Your task to perform on an android device: Check the settings for the Google Maps app Image 0: 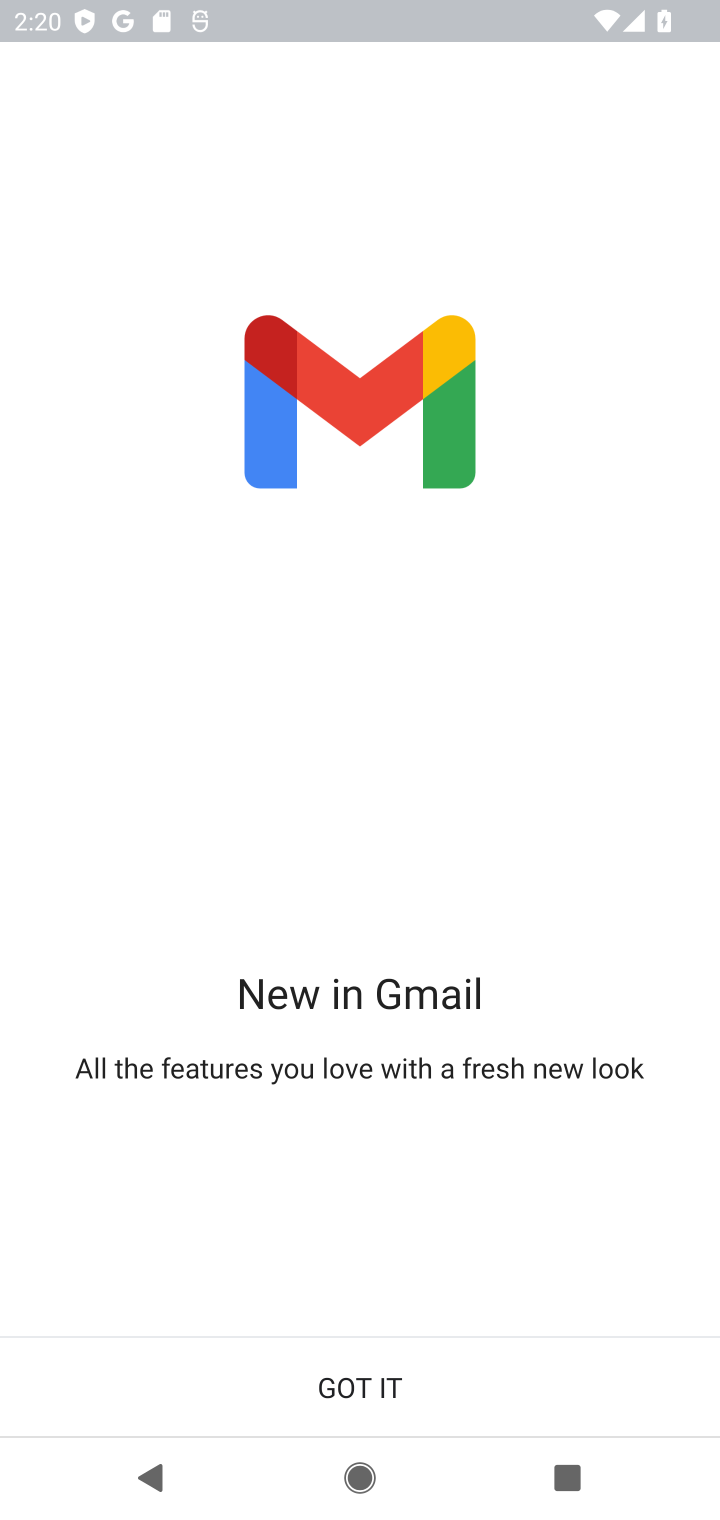
Step 0: press home button
Your task to perform on an android device: Check the settings for the Google Maps app Image 1: 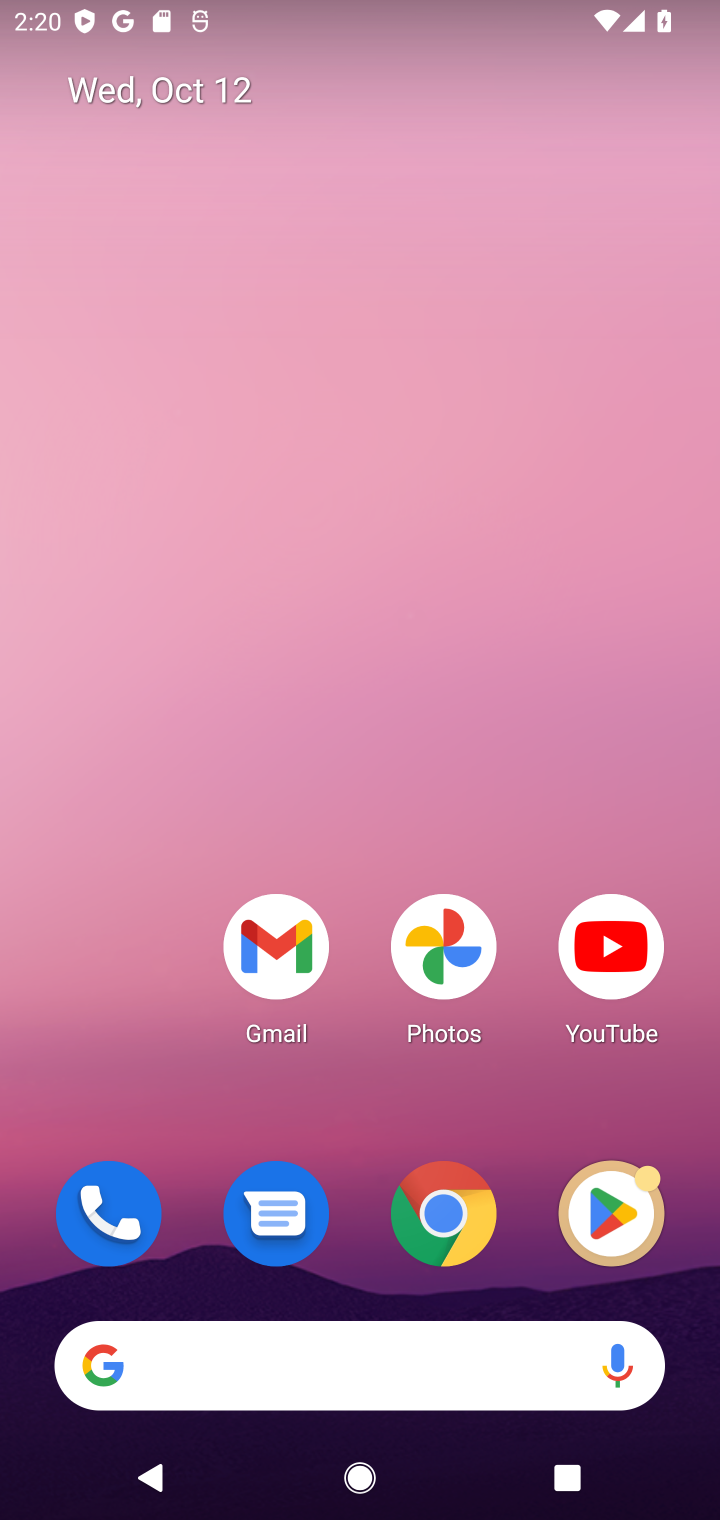
Step 1: drag from (377, 836) to (483, 89)
Your task to perform on an android device: Check the settings for the Google Maps app Image 2: 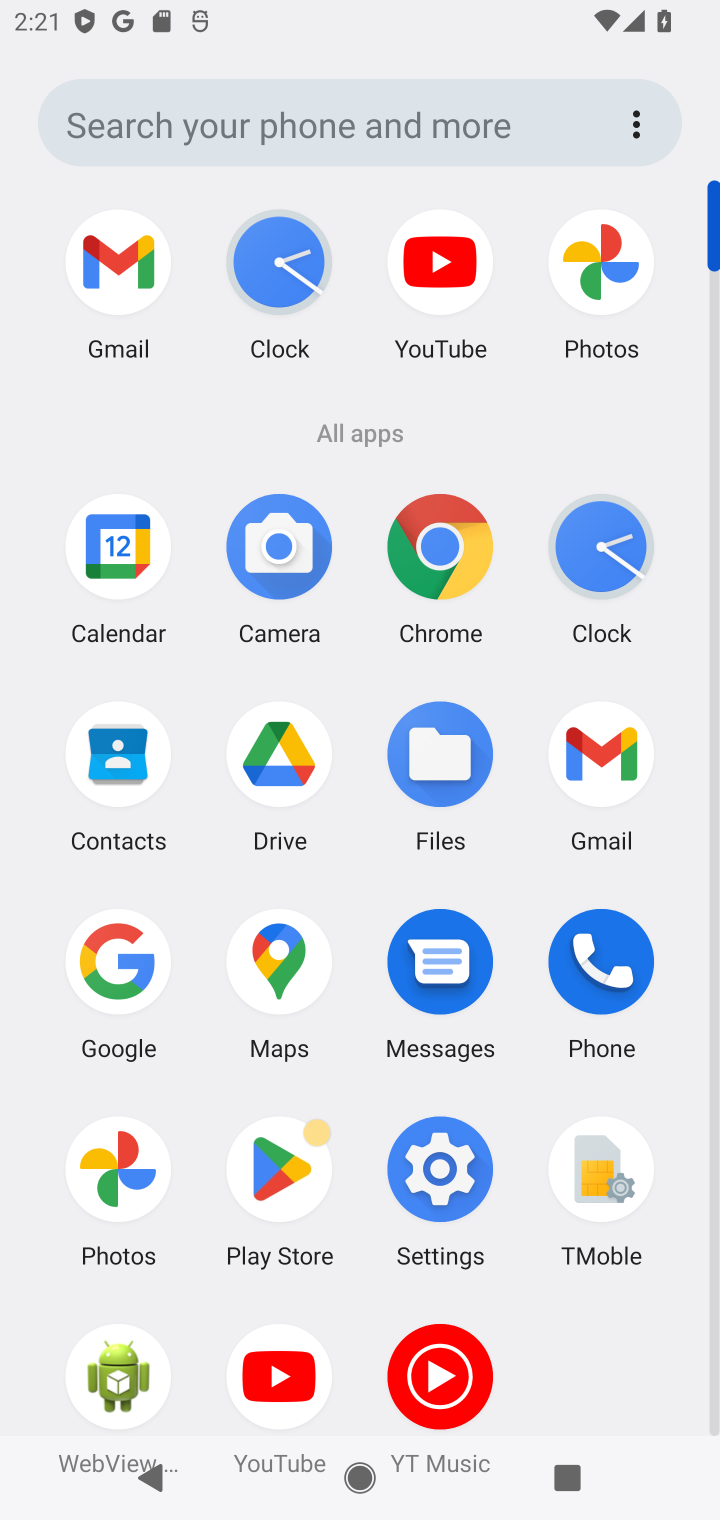
Step 2: click (268, 959)
Your task to perform on an android device: Check the settings for the Google Maps app Image 3: 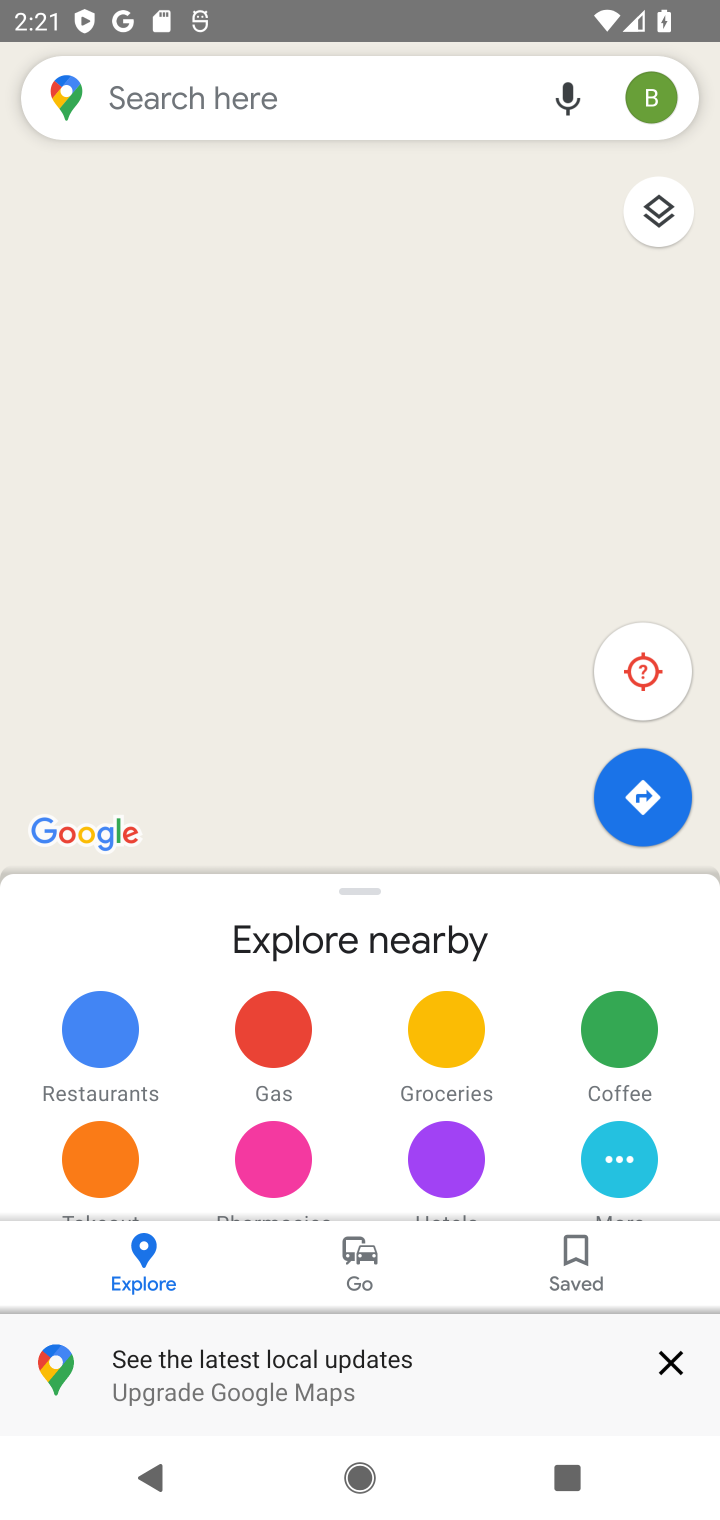
Step 3: click (637, 90)
Your task to perform on an android device: Check the settings for the Google Maps app Image 4: 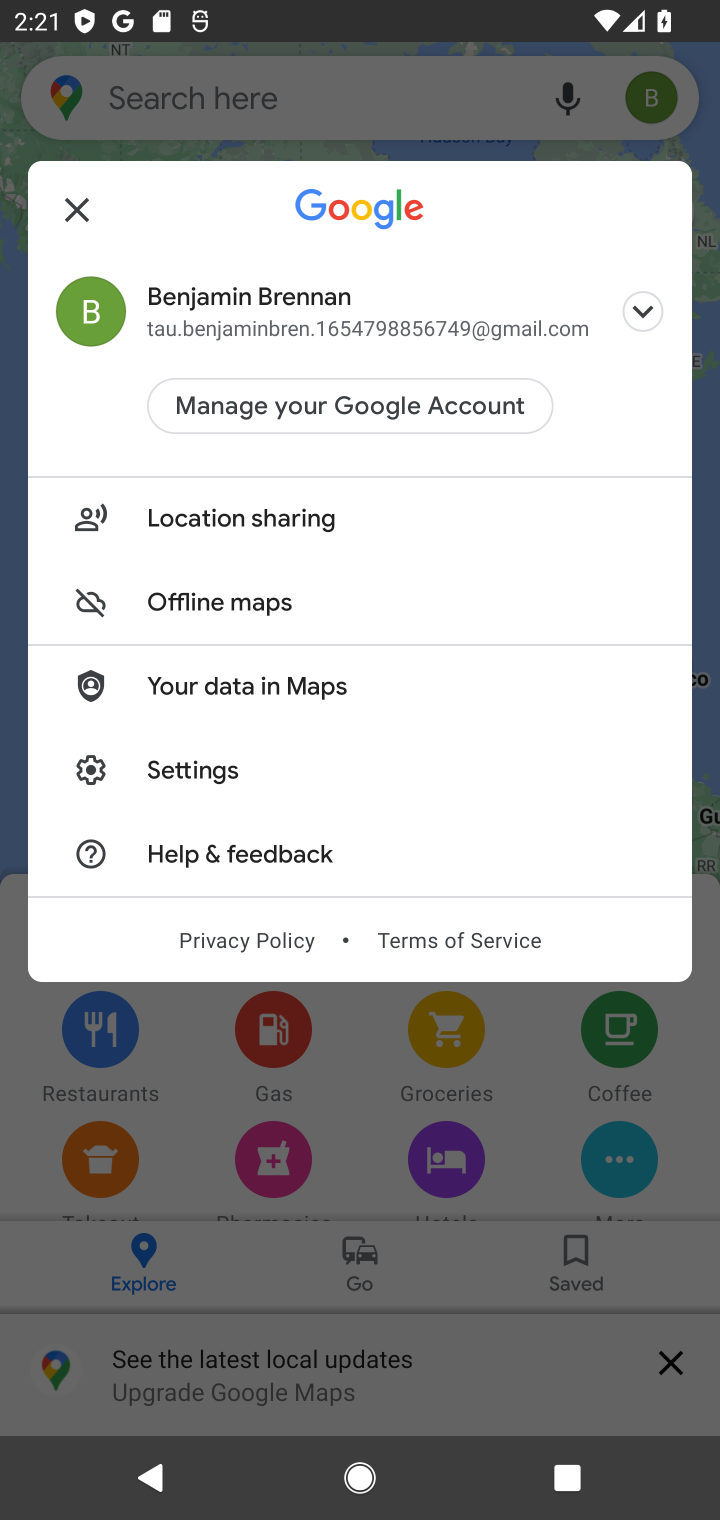
Step 4: click (328, 1178)
Your task to perform on an android device: Check the settings for the Google Maps app Image 5: 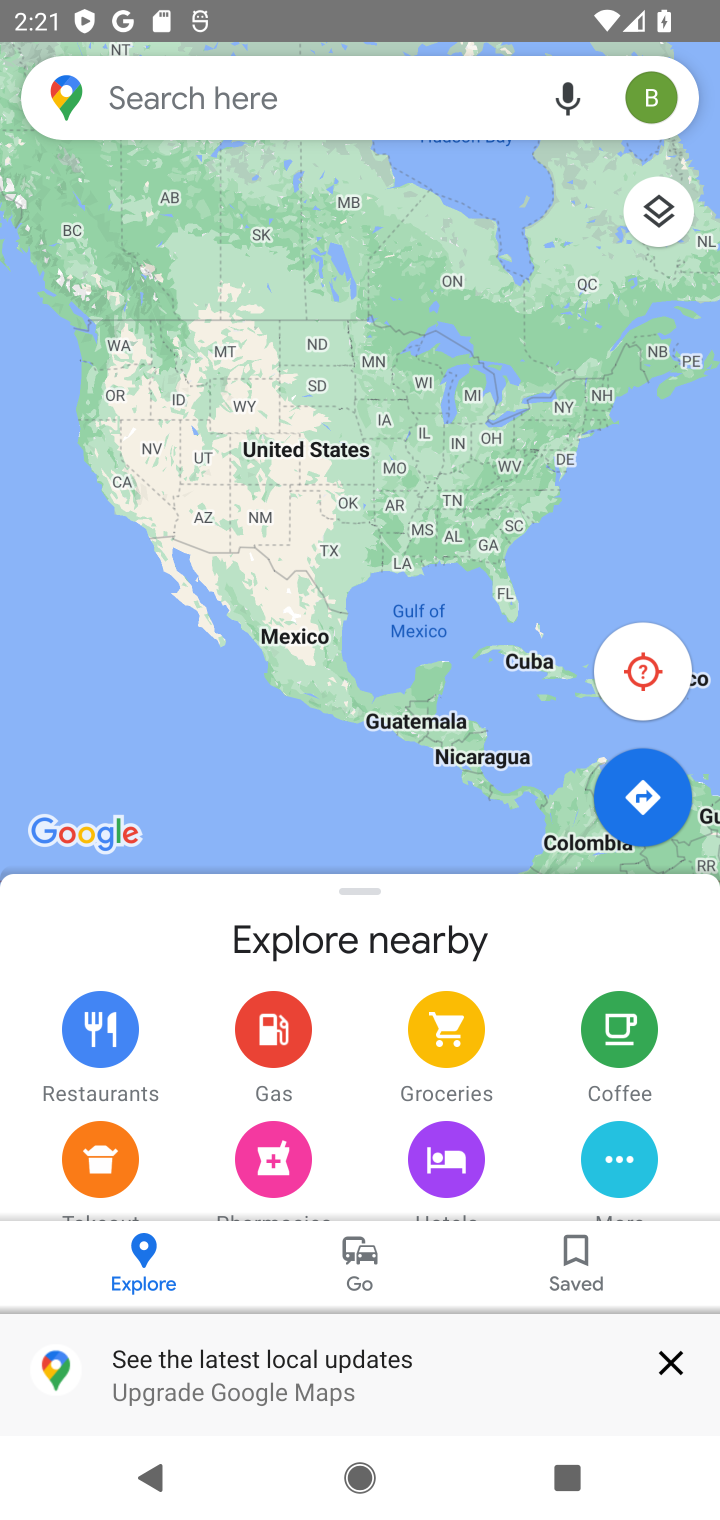
Step 5: click (651, 90)
Your task to perform on an android device: Check the settings for the Google Maps app Image 6: 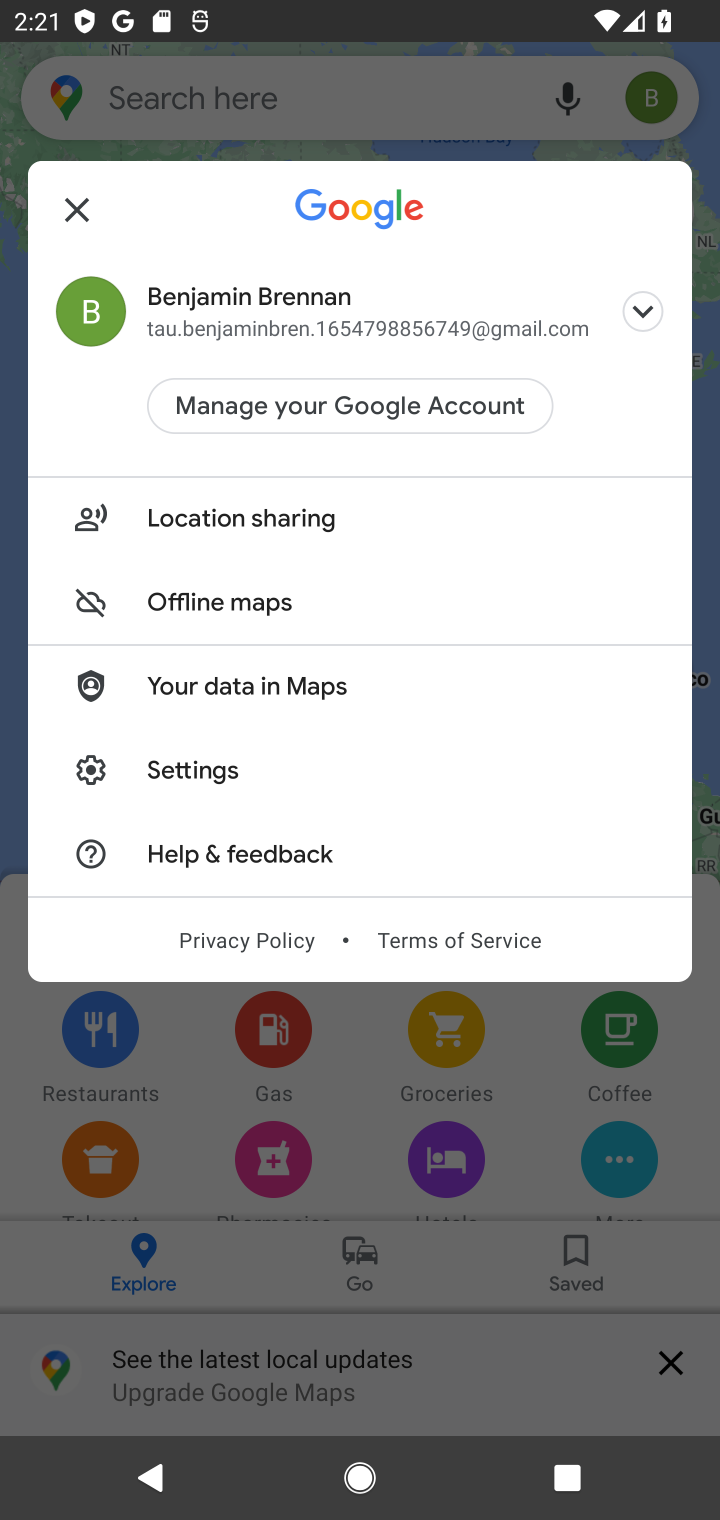
Step 6: click (195, 1089)
Your task to perform on an android device: Check the settings for the Google Maps app Image 7: 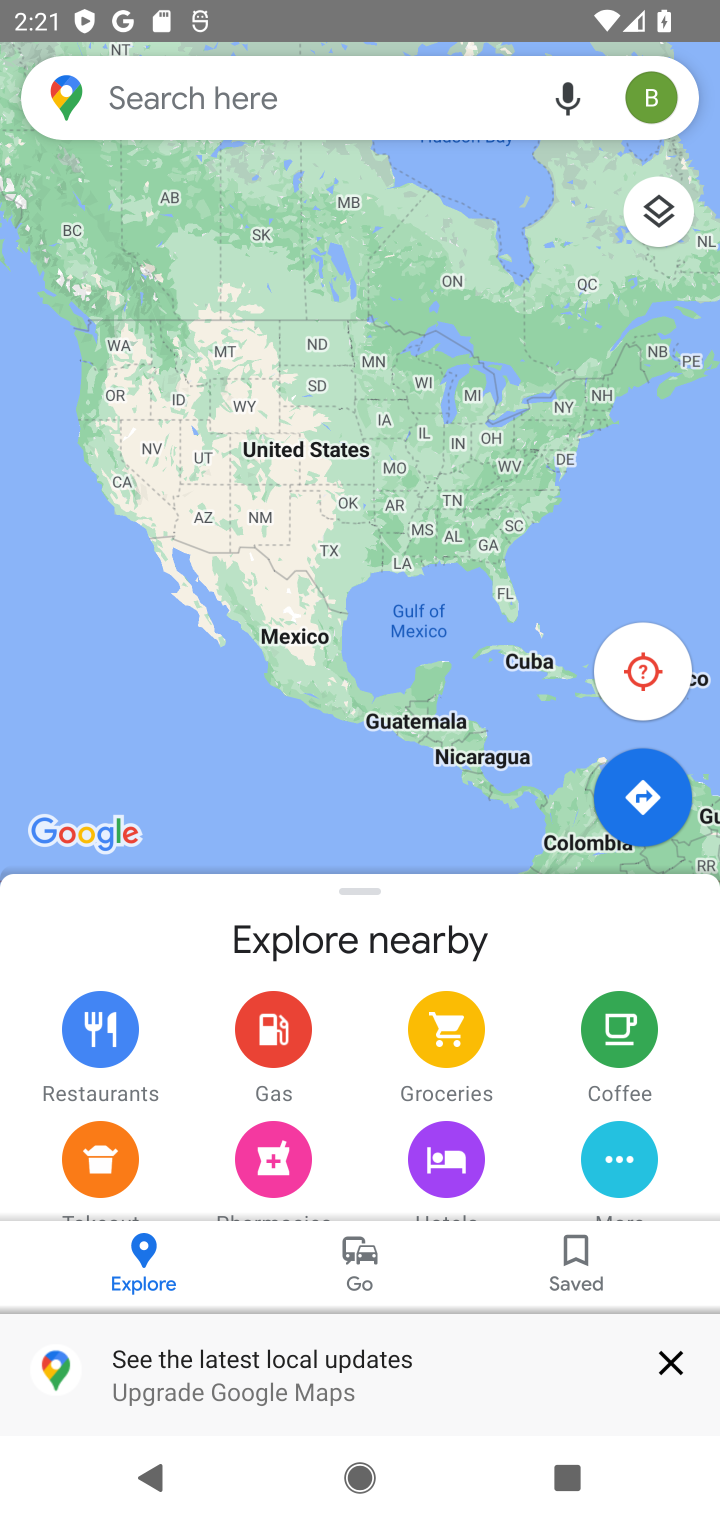
Step 7: click (68, 109)
Your task to perform on an android device: Check the settings for the Google Maps app Image 8: 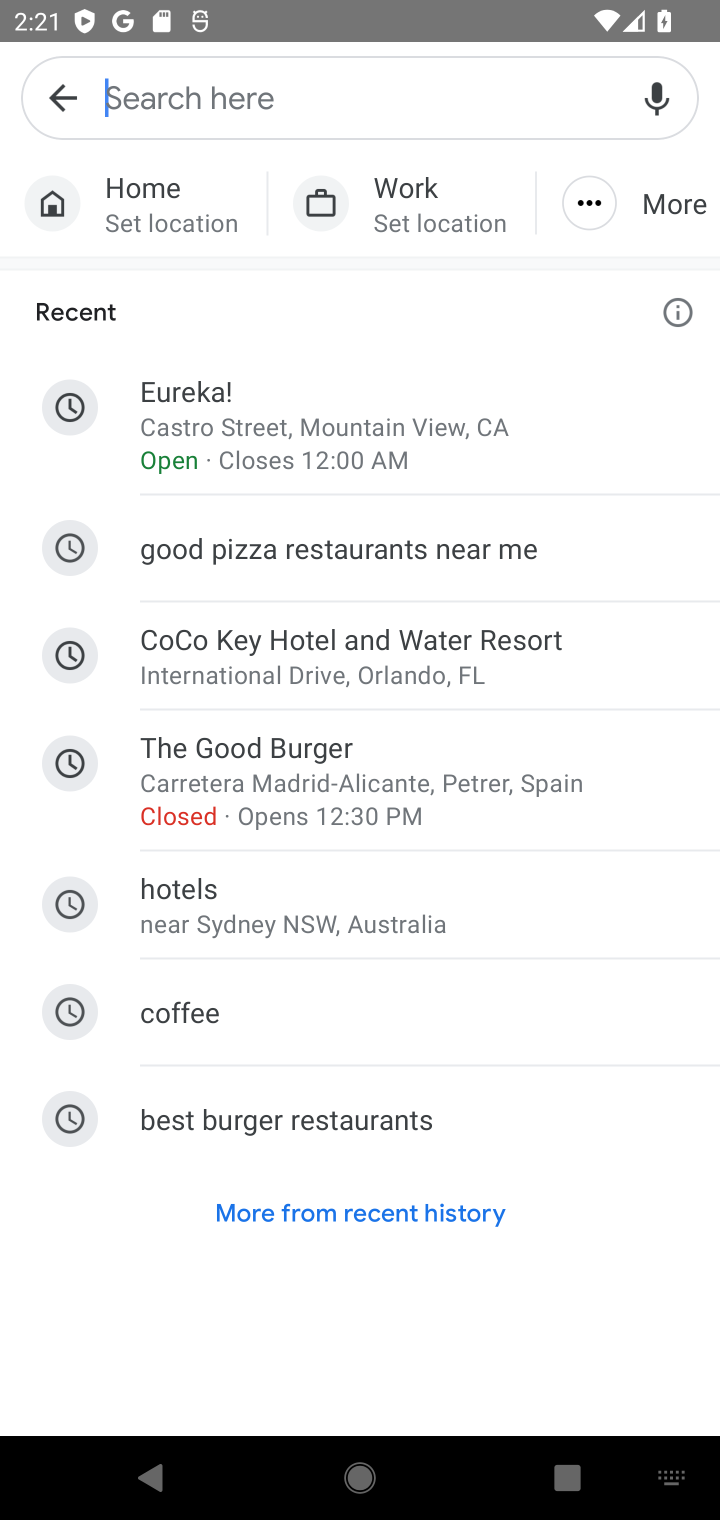
Step 8: press back button
Your task to perform on an android device: Check the settings for the Google Maps app Image 9: 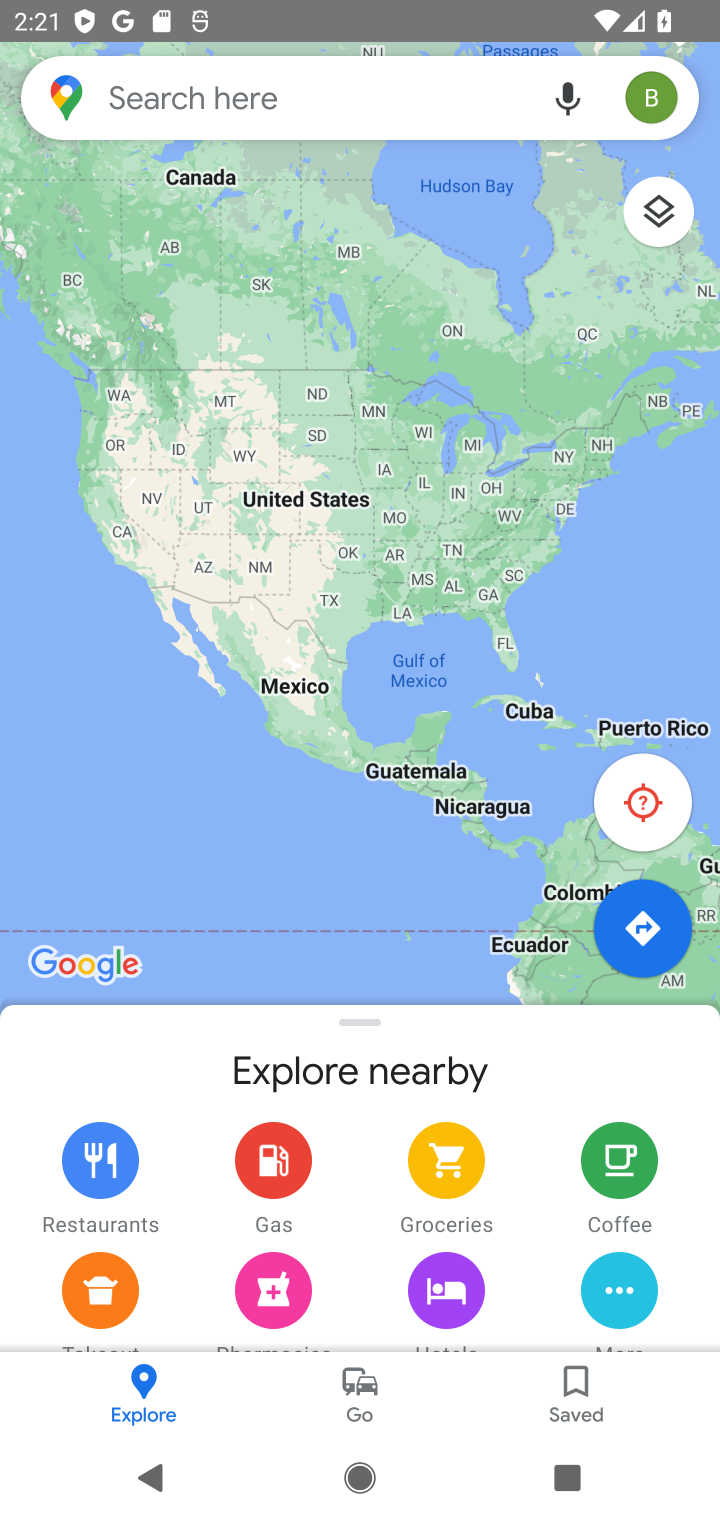
Step 9: click (638, 106)
Your task to perform on an android device: Check the settings for the Google Maps app Image 10: 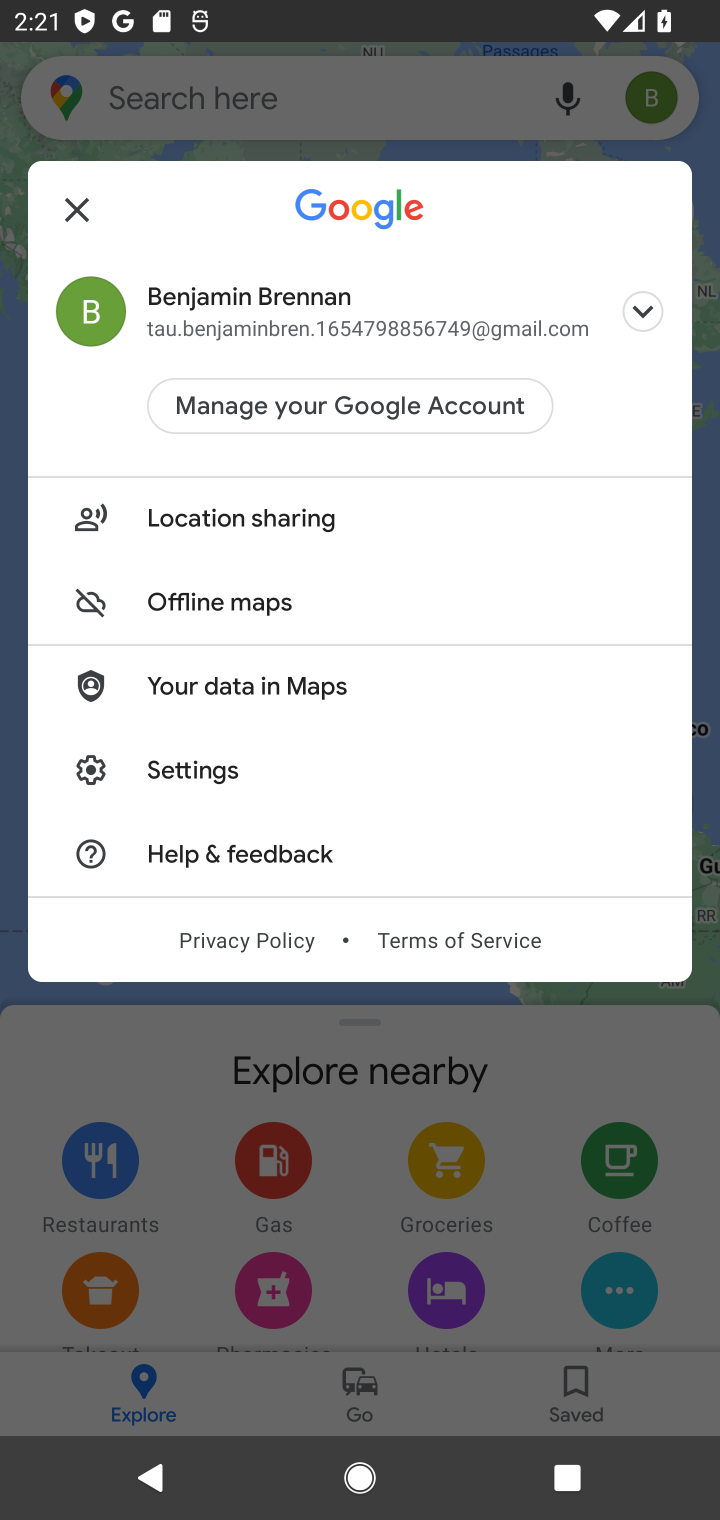
Step 10: click (271, 771)
Your task to perform on an android device: Check the settings for the Google Maps app Image 11: 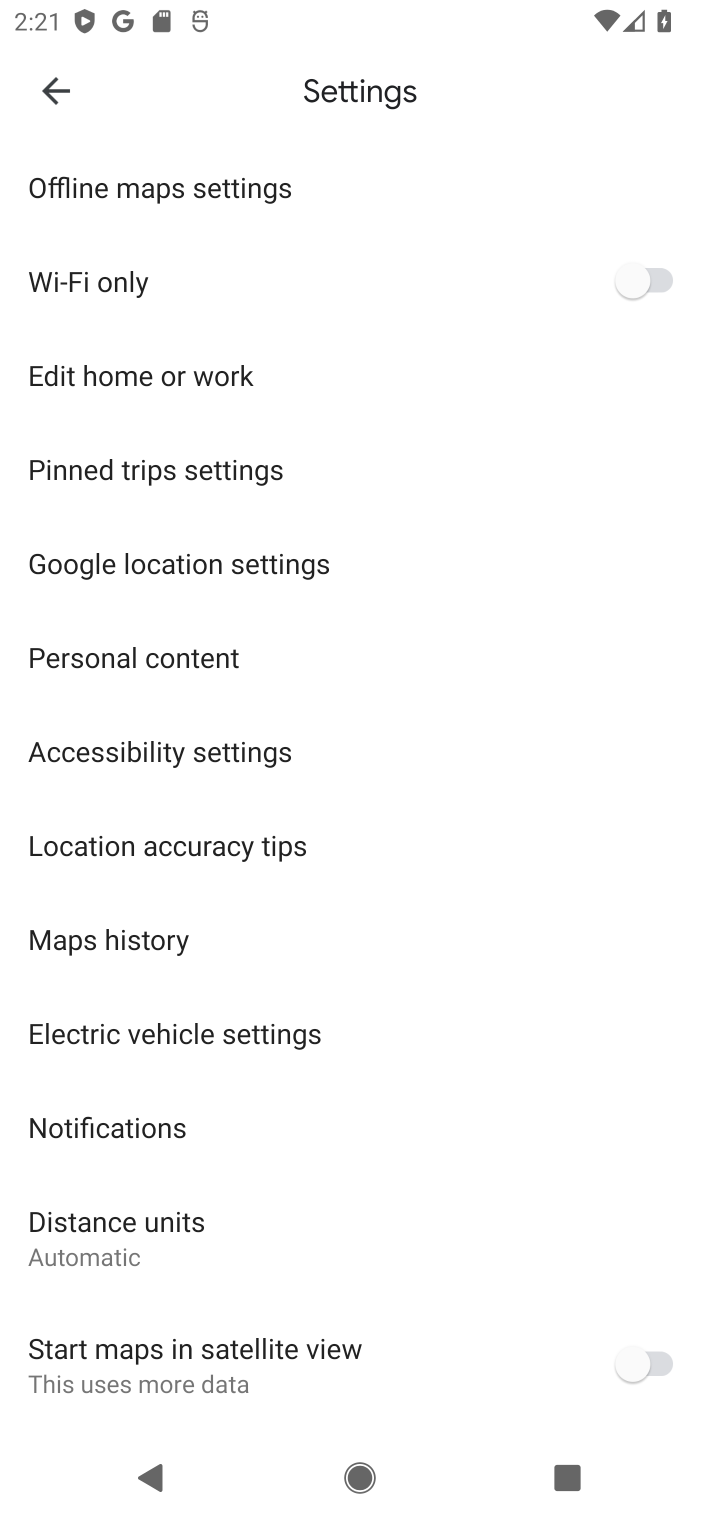
Step 11: task complete